Your task to perform on an android device: find photos in the google photos app Image 0: 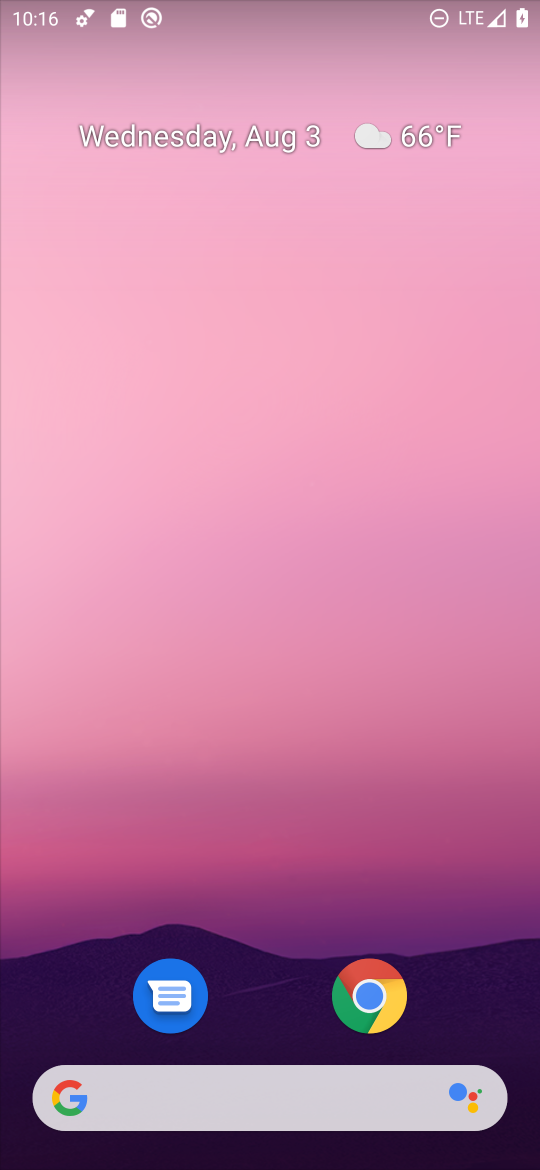
Step 0: drag from (282, 910) to (234, 178)
Your task to perform on an android device: find photos in the google photos app Image 1: 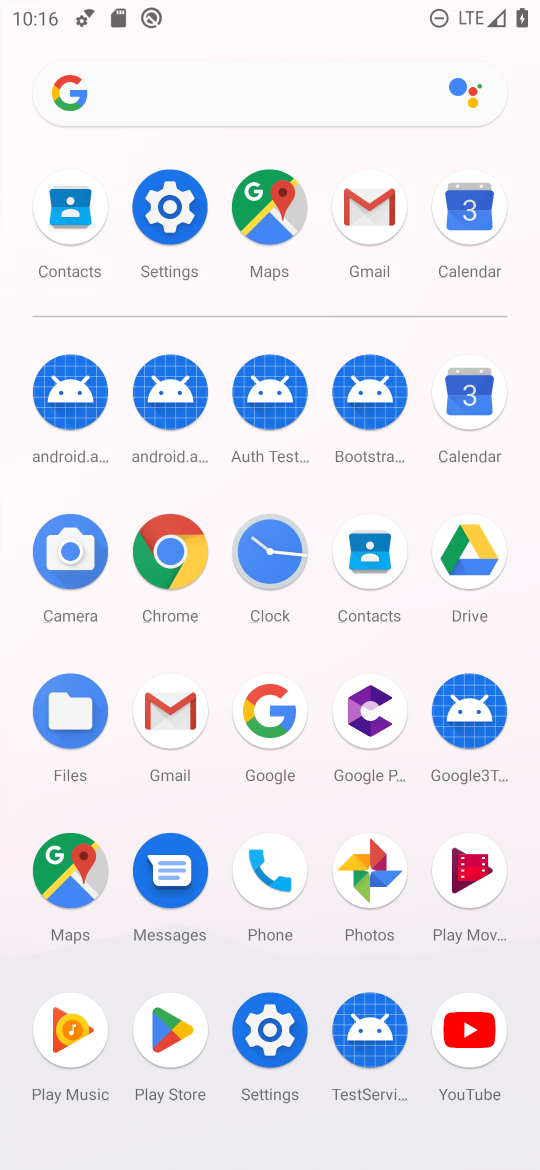
Step 1: click (363, 861)
Your task to perform on an android device: find photos in the google photos app Image 2: 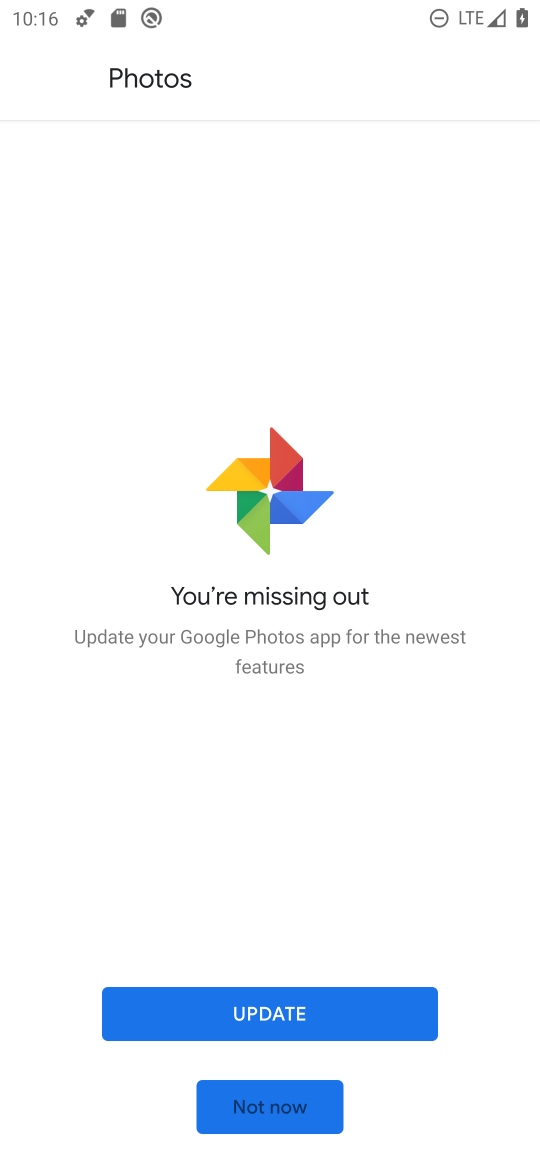
Step 2: click (325, 1102)
Your task to perform on an android device: find photos in the google photos app Image 3: 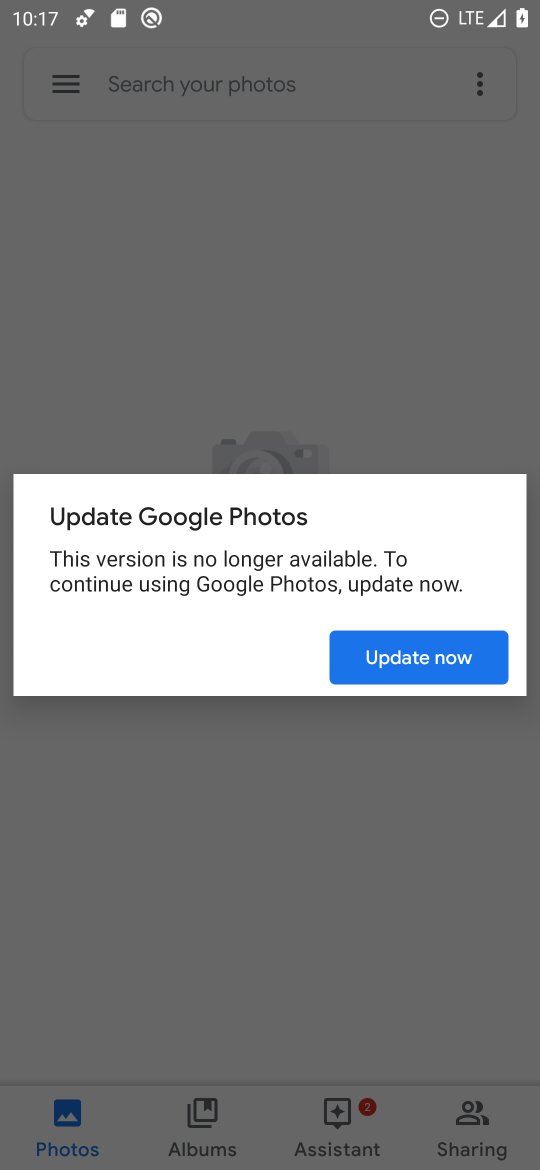
Step 3: click (415, 658)
Your task to perform on an android device: find photos in the google photos app Image 4: 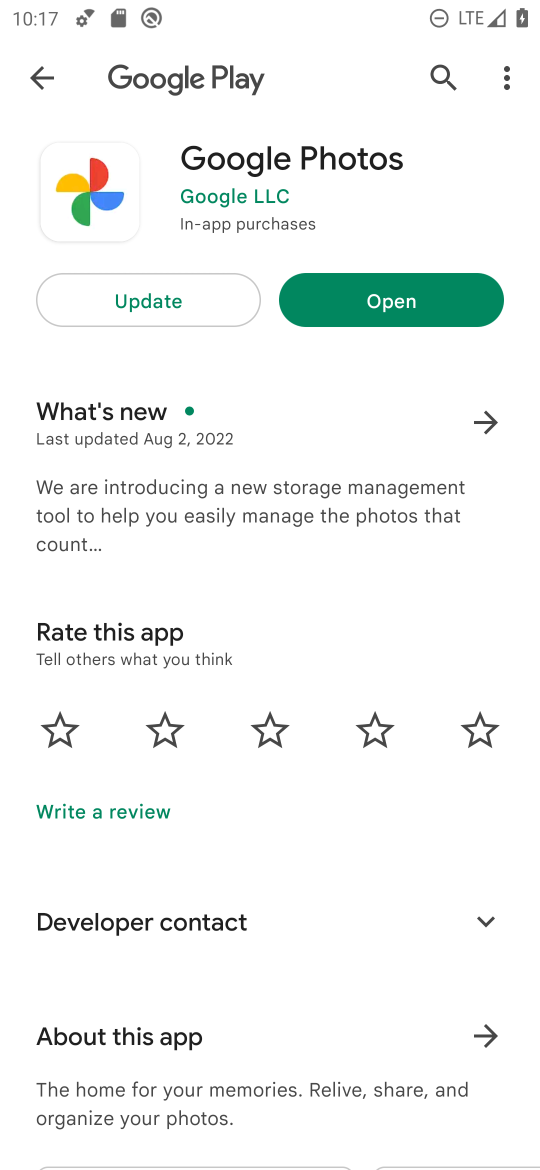
Step 4: click (403, 309)
Your task to perform on an android device: find photos in the google photos app Image 5: 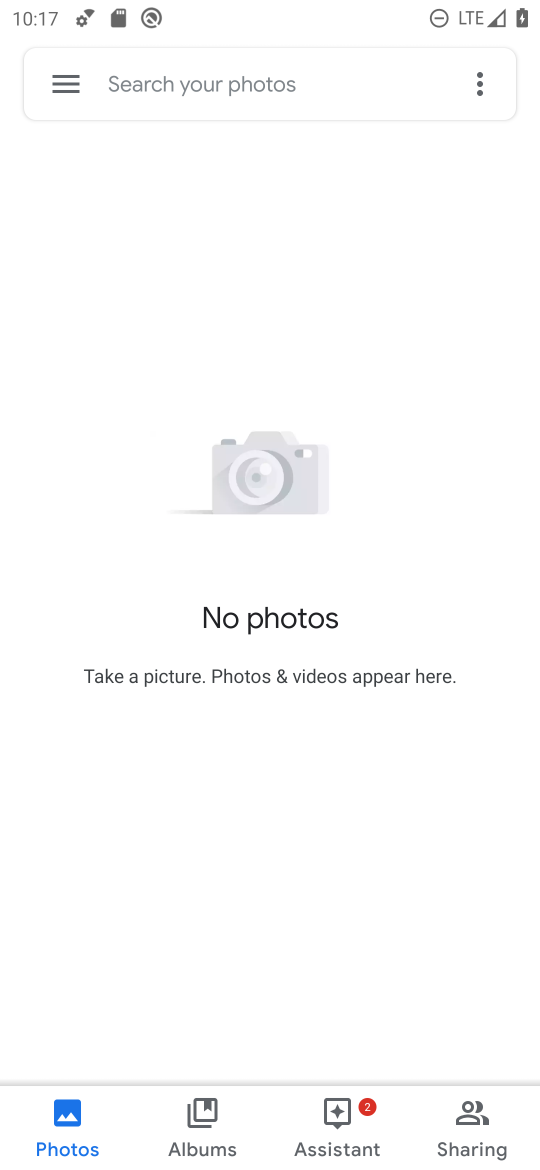
Step 5: task complete